Your task to perform on an android device: Is it going to rain tomorrow? Image 0: 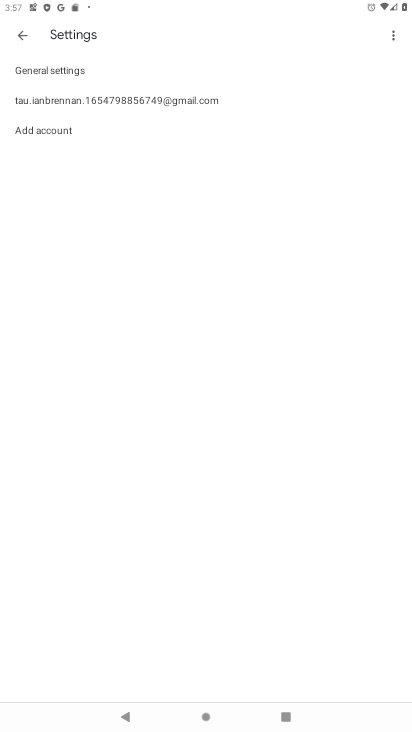
Step 0: press home button
Your task to perform on an android device: Is it going to rain tomorrow? Image 1: 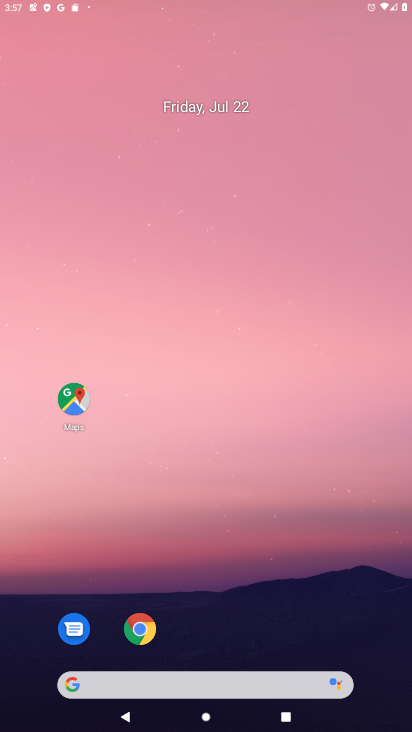
Step 1: drag from (202, 699) to (152, 153)
Your task to perform on an android device: Is it going to rain tomorrow? Image 2: 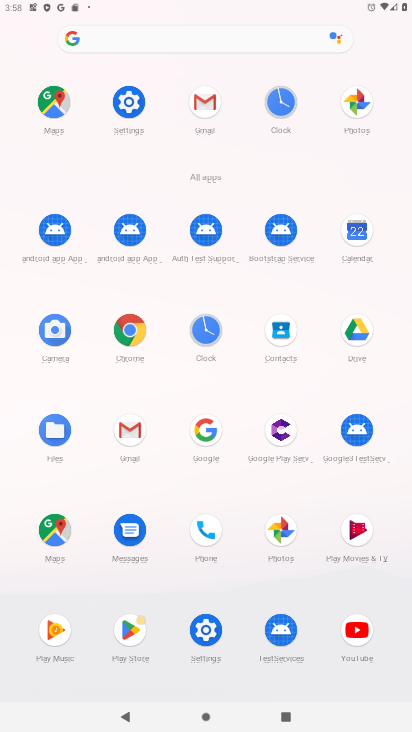
Step 2: drag from (189, 491) to (186, 266)
Your task to perform on an android device: Is it going to rain tomorrow? Image 3: 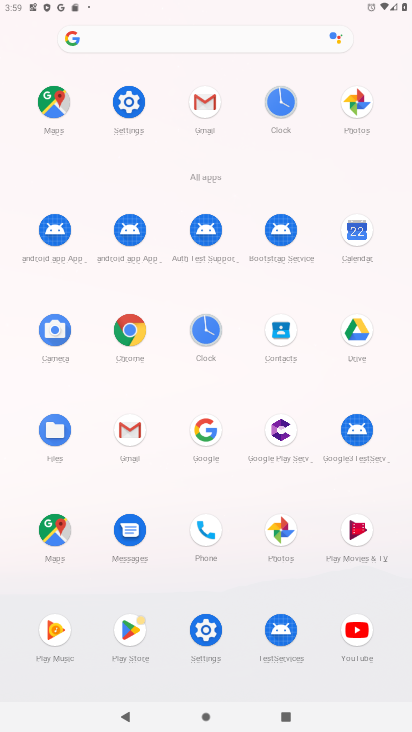
Step 3: click (207, 452)
Your task to perform on an android device: Is it going to rain tomorrow? Image 4: 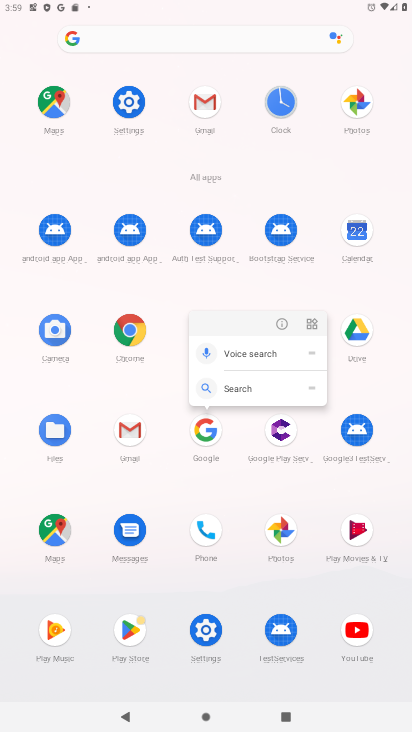
Step 4: click (198, 462)
Your task to perform on an android device: Is it going to rain tomorrow? Image 5: 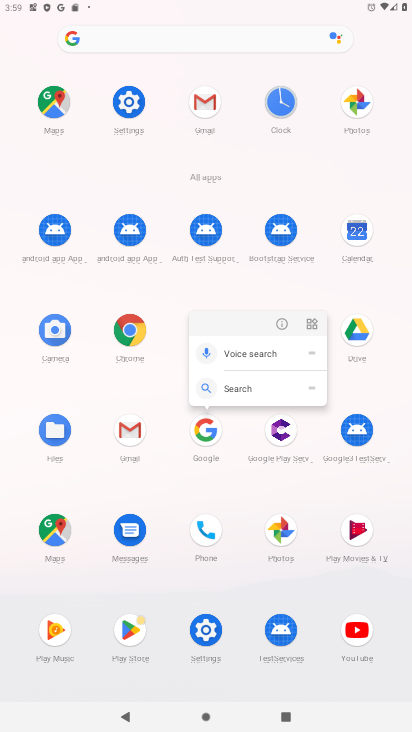
Step 5: click (209, 455)
Your task to perform on an android device: Is it going to rain tomorrow? Image 6: 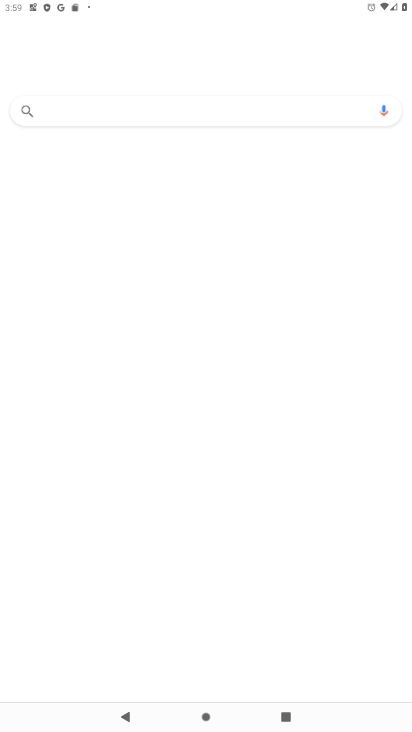
Step 6: drag from (209, 455) to (221, 262)
Your task to perform on an android device: Is it going to rain tomorrow? Image 7: 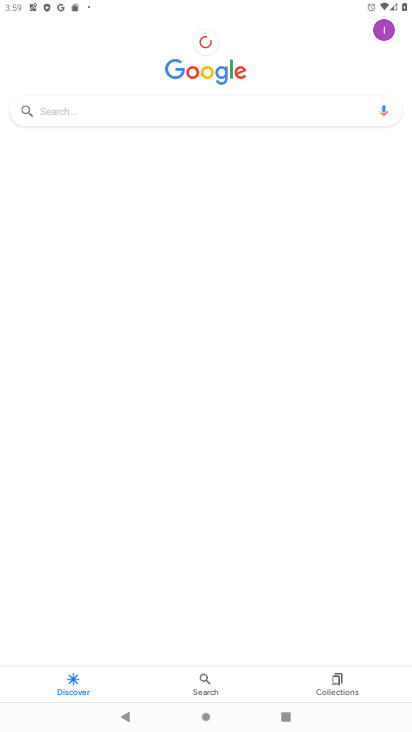
Step 7: click (173, 117)
Your task to perform on an android device: Is it going to rain tomorrow? Image 8: 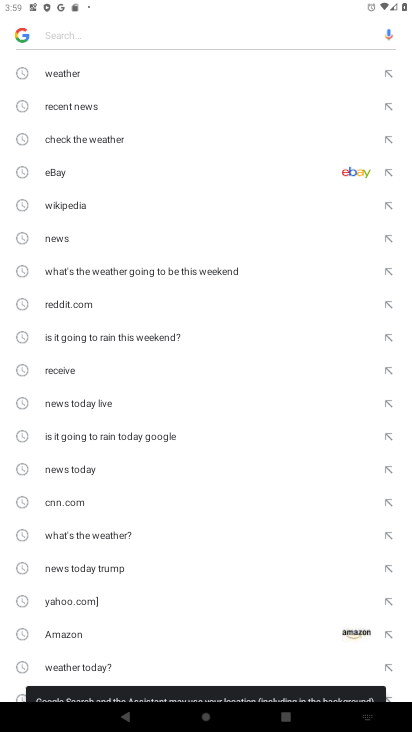
Step 8: click (265, 66)
Your task to perform on an android device: Is it going to rain tomorrow? Image 9: 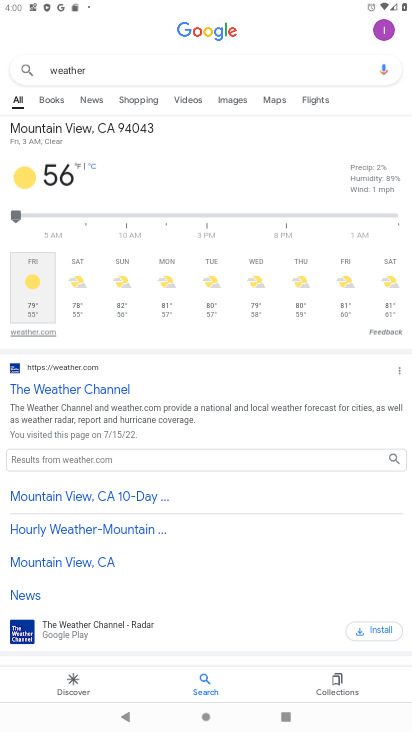
Step 9: task complete